Your task to perform on an android device: show emergency info Image 0: 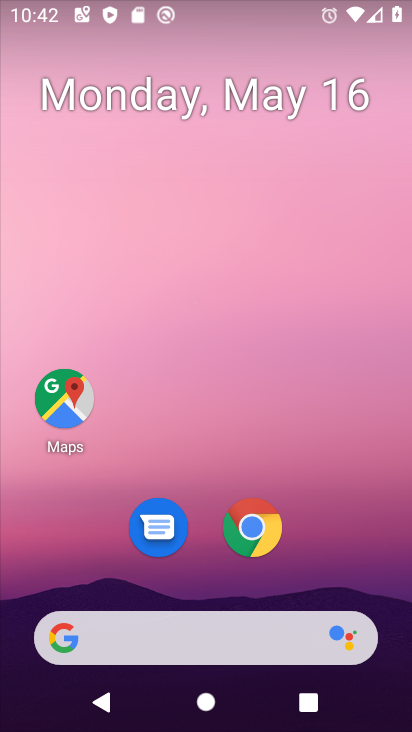
Step 0: drag from (372, 588) to (328, 6)
Your task to perform on an android device: show emergency info Image 1: 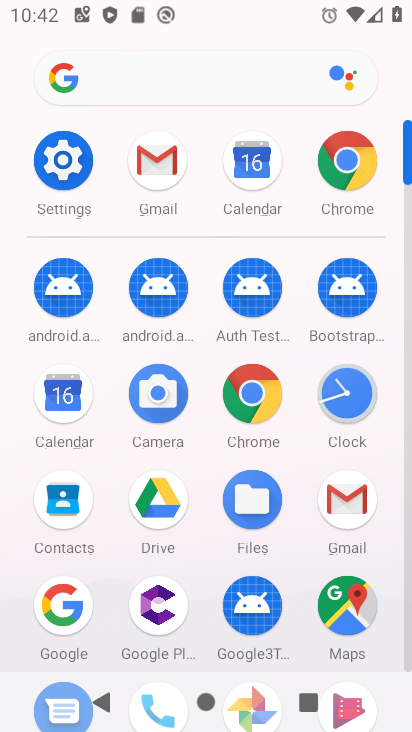
Step 1: click (55, 176)
Your task to perform on an android device: show emergency info Image 2: 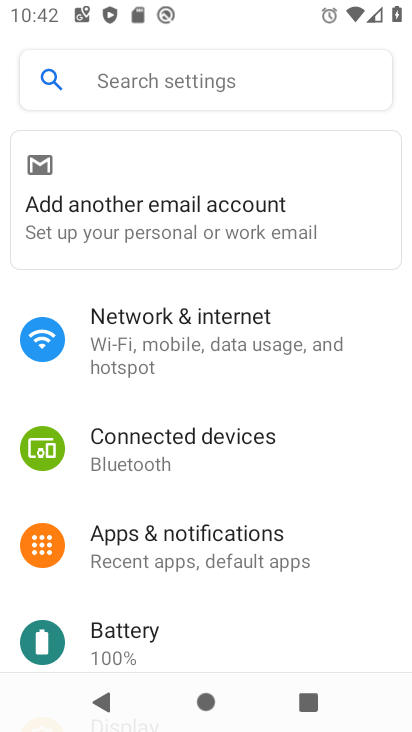
Step 2: drag from (241, 571) to (257, 117)
Your task to perform on an android device: show emergency info Image 3: 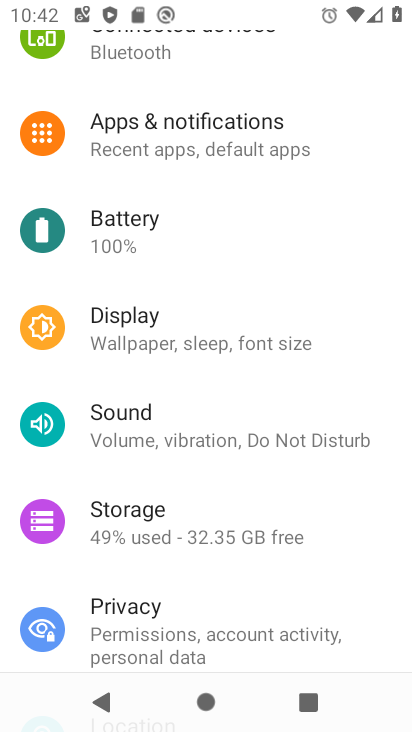
Step 3: drag from (206, 572) to (221, 113)
Your task to perform on an android device: show emergency info Image 4: 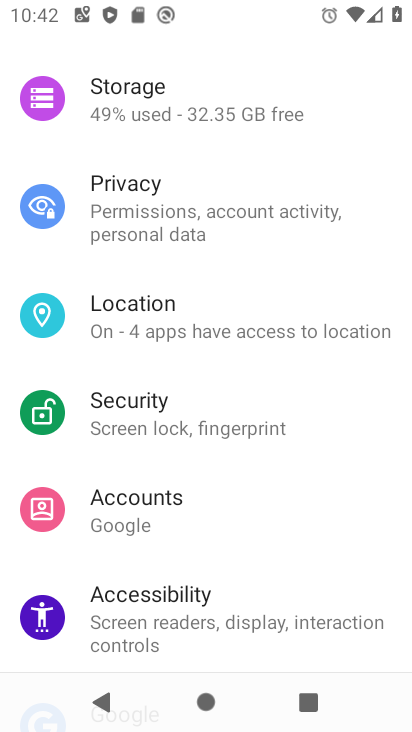
Step 4: drag from (222, 525) to (231, 112)
Your task to perform on an android device: show emergency info Image 5: 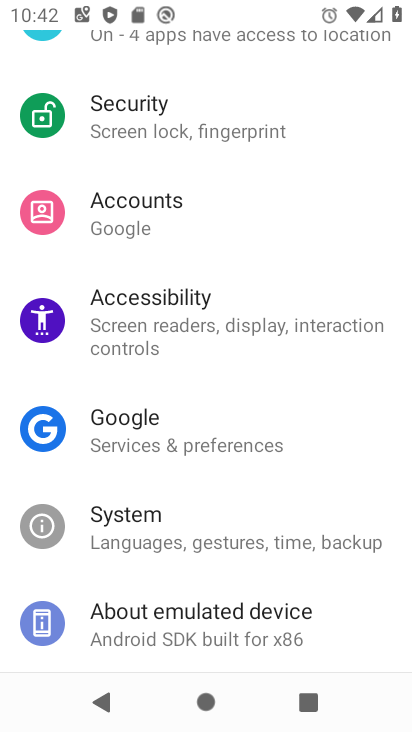
Step 5: click (182, 620)
Your task to perform on an android device: show emergency info Image 6: 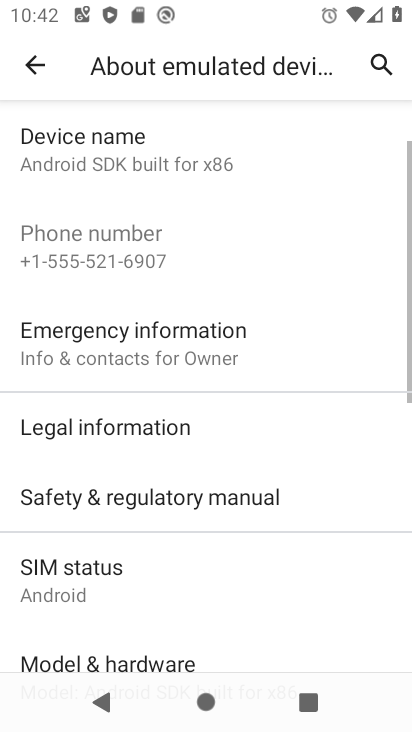
Step 6: click (123, 349)
Your task to perform on an android device: show emergency info Image 7: 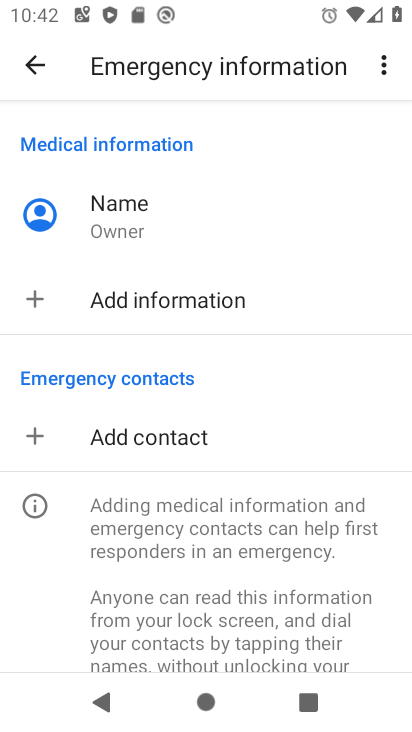
Step 7: task complete